Your task to perform on an android device: toggle location history Image 0: 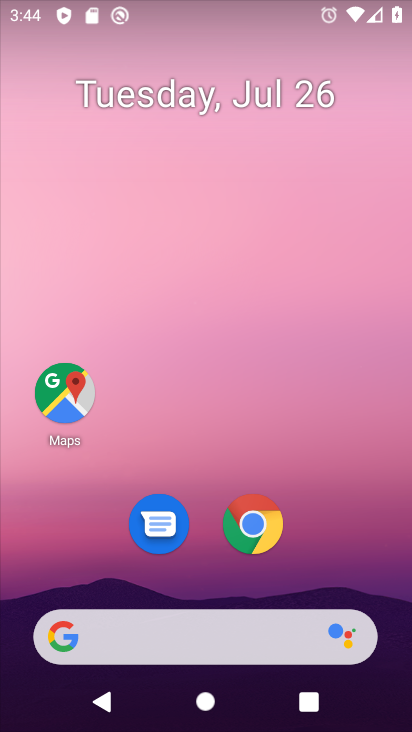
Step 0: drag from (342, 515) to (294, 47)
Your task to perform on an android device: toggle location history Image 1: 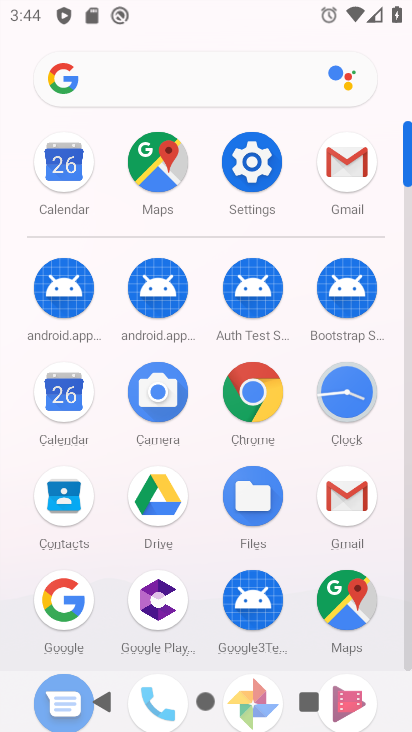
Step 1: click (261, 166)
Your task to perform on an android device: toggle location history Image 2: 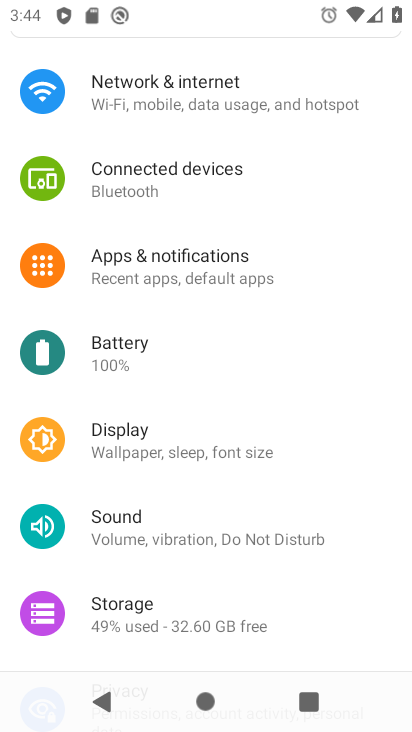
Step 2: drag from (240, 469) to (233, 269)
Your task to perform on an android device: toggle location history Image 3: 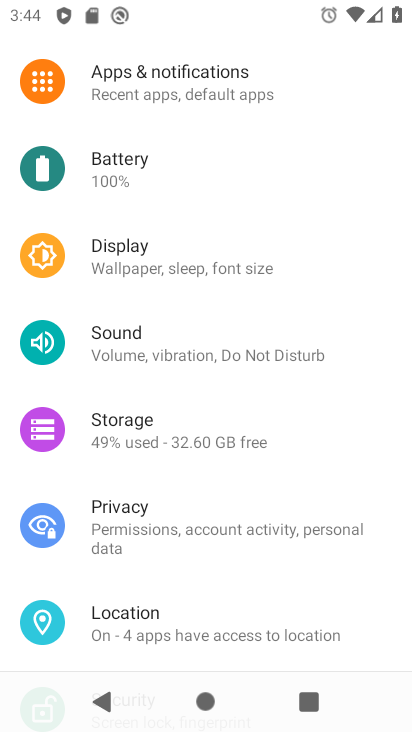
Step 3: click (217, 628)
Your task to perform on an android device: toggle location history Image 4: 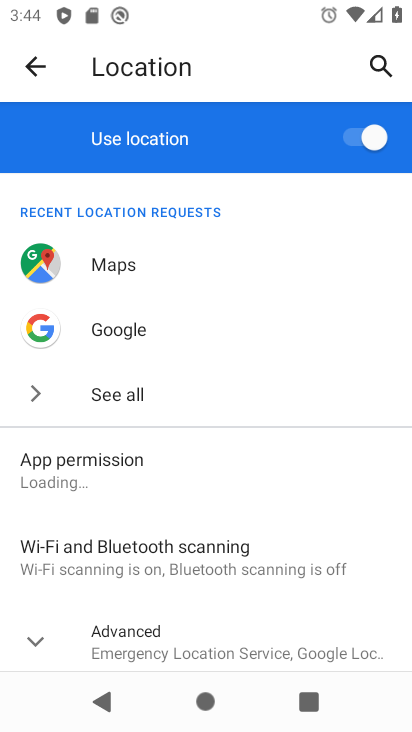
Step 4: click (41, 640)
Your task to perform on an android device: toggle location history Image 5: 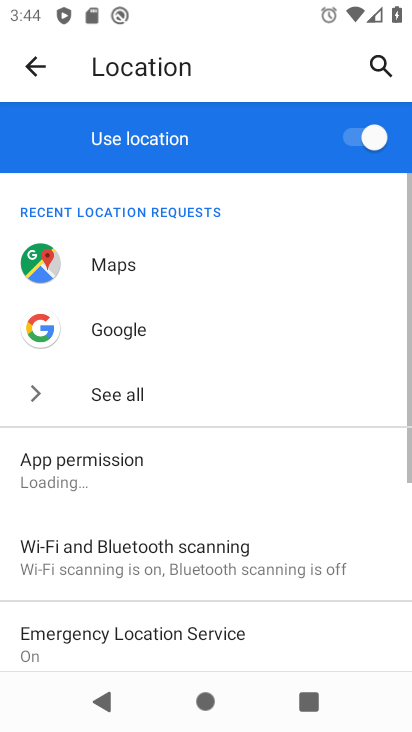
Step 5: drag from (252, 547) to (257, 318)
Your task to perform on an android device: toggle location history Image 6: 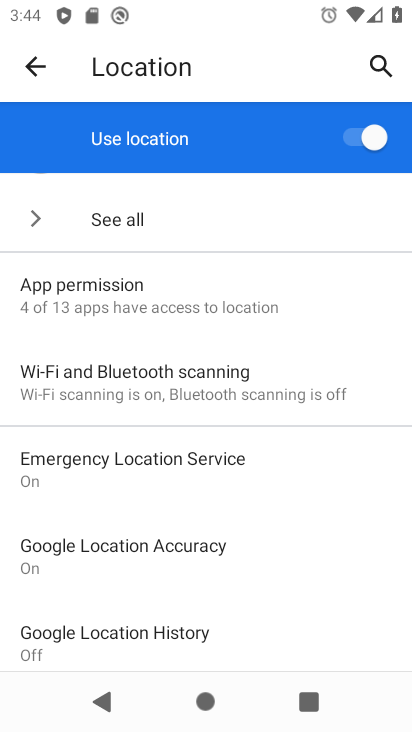
Step 6: click (153, 629)
Your task to perform on an android device: toggle location history Image 7: 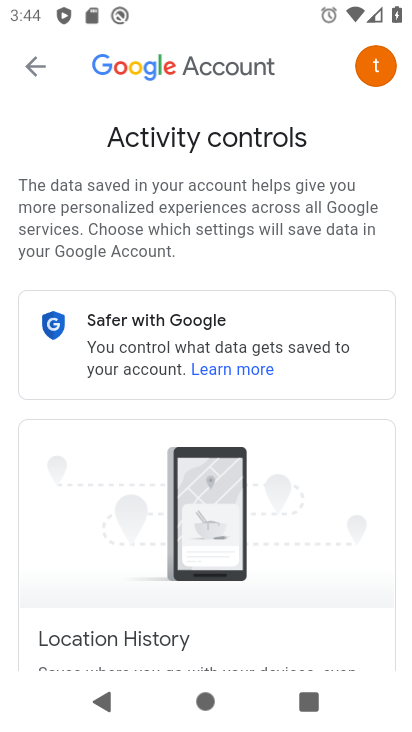
Step 7: drag from (272, 491) to (255, 124)
Your task to perform on an android device: toggle location history Image 8: 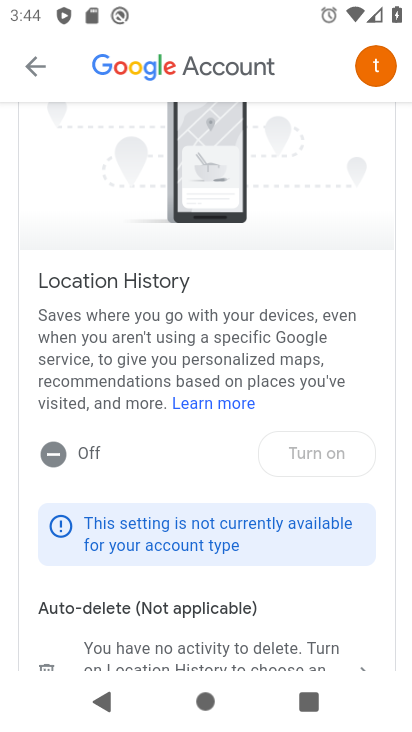
Step 8: click (336, 444)
Your task to perform on an android device: toggle location history Image 9: 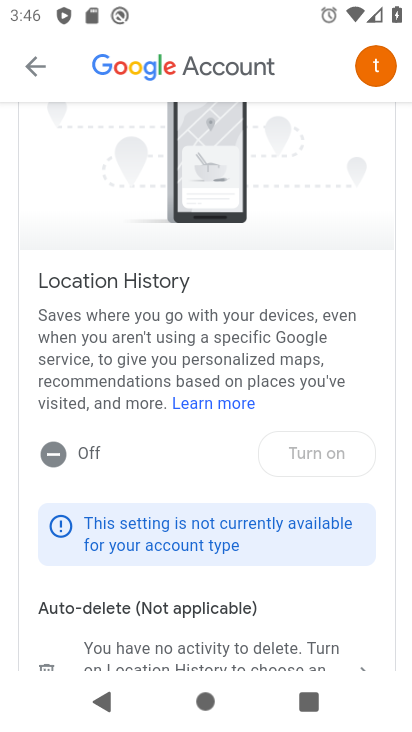
Step 9: task complete